Your task to perform on an android device: check out phone information Image 0: 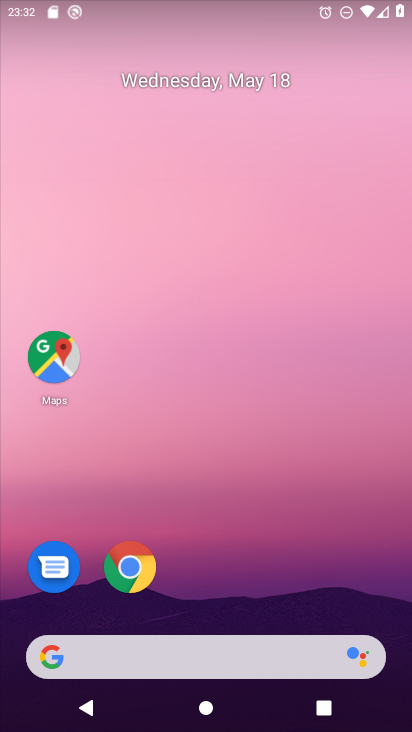
Step 0: drag from (294, 669) to (268, 232)
Your task to perform on an android device: check out phone information Image 1: 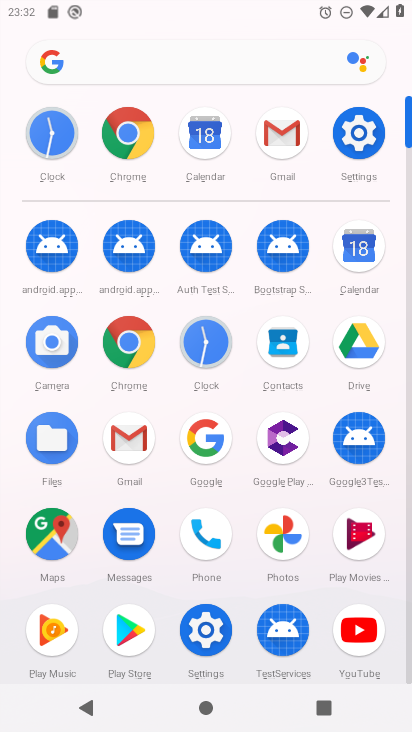
Step 1: click (350, 160)
Your task to perform on an android device: check out phone information Image 2: 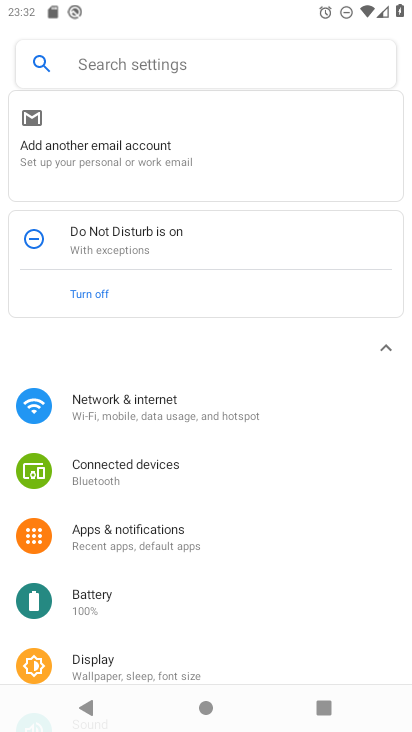
Step 2: click (125, 73)
Your task to perform on an android device: check out phone information Image 3: 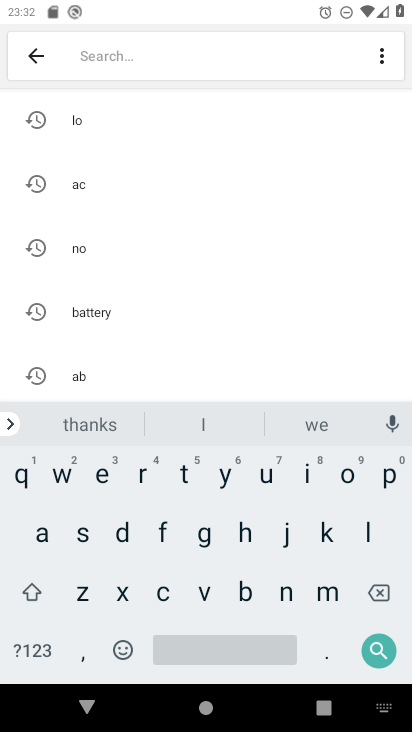
Step 3: click (41, 541)
Your task to perform on an android device: check out phone information Image 4: 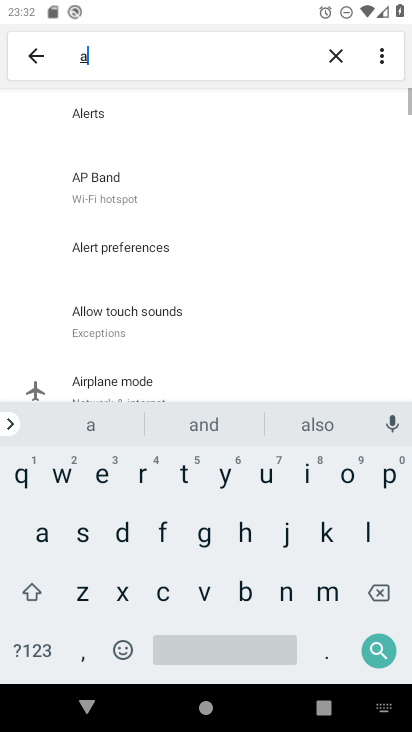
Step 4: click (244, 601)
Your task to perform on an android device: check out phone information Image 5: 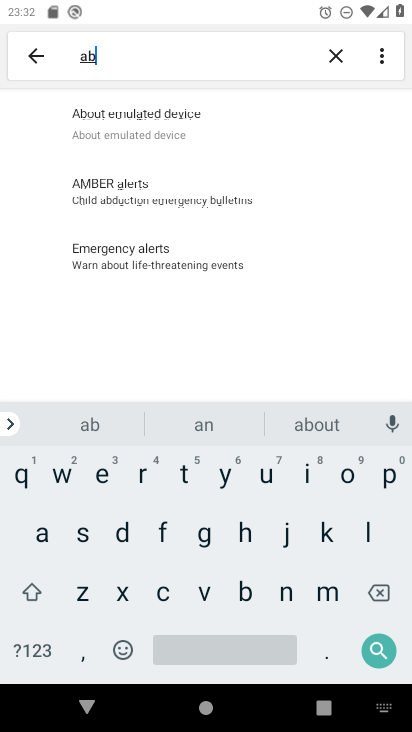
Step 5: click (160, 123)
Your task to perform on an android device: check out phone information Image 6: 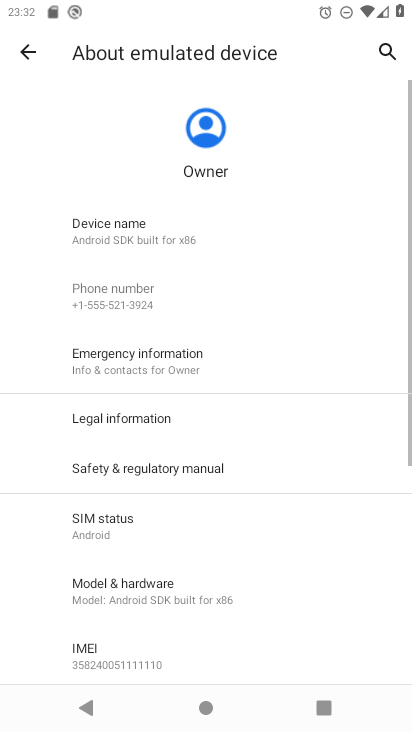
Step 6: task complete